Your task to perform on an android device: Open settings Image 0: 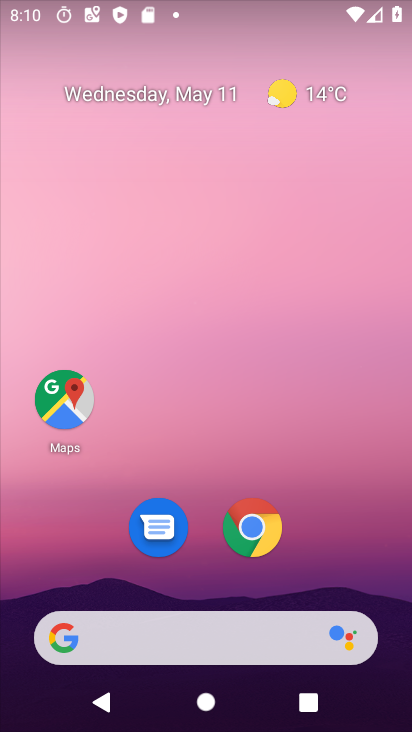
Step 0: drag from (338, 607) to (281, 171)
Your task to perform on an android device: Open settings Image 1: 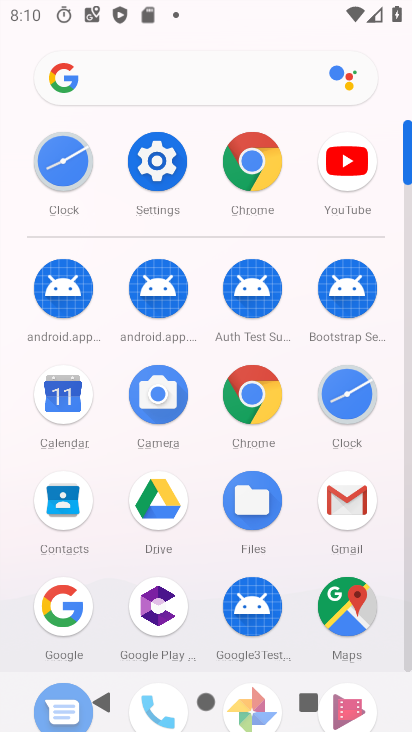
Step 1: drag from (249, 512) to (258, 431)
Your task to perform on an android device: Open settings Image 2: 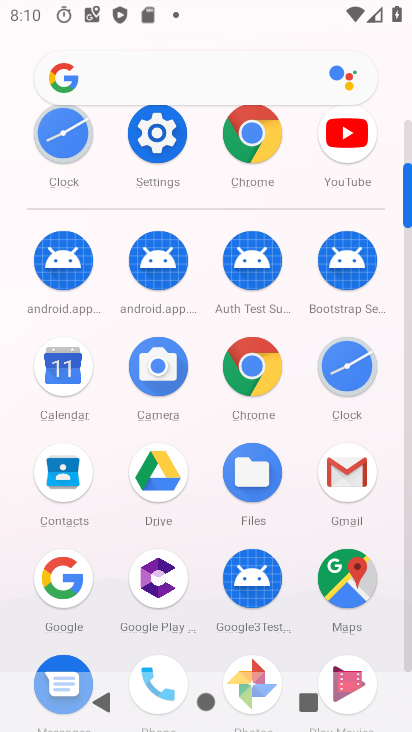
Step 2: click (167, 131)
Your task to perform on an android device: Open settings Image 3: 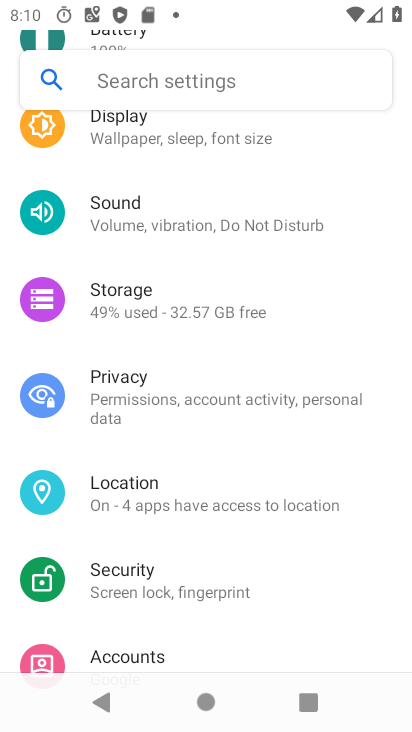
Step 3: task complete